Your task to perform on an android device: move a message to another label in the gmail app Image 0: 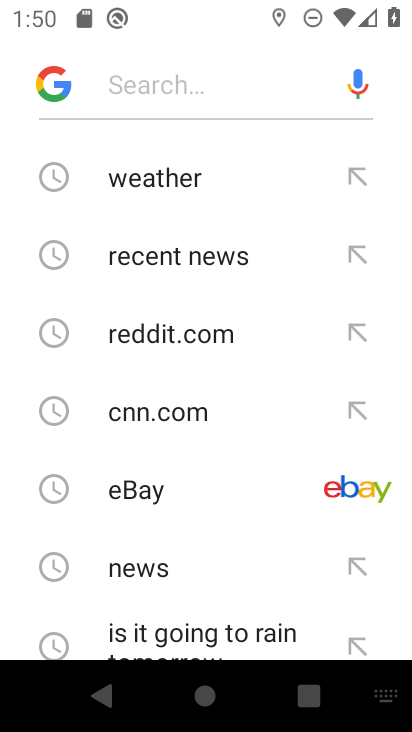
Step 0: press home button
Your task to perform on an android device: move a message to another label in the gmail app Image 1: 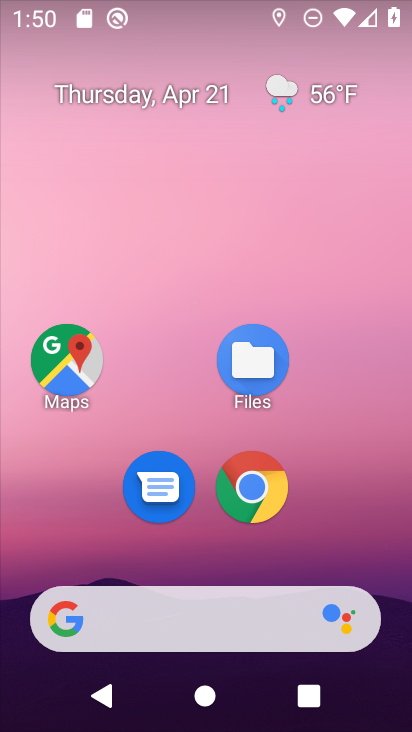
Step 1: drag from (360, 504) to (386, 104)
Your task to perform on an android device: move a message to another label in the gmail app Image 2: 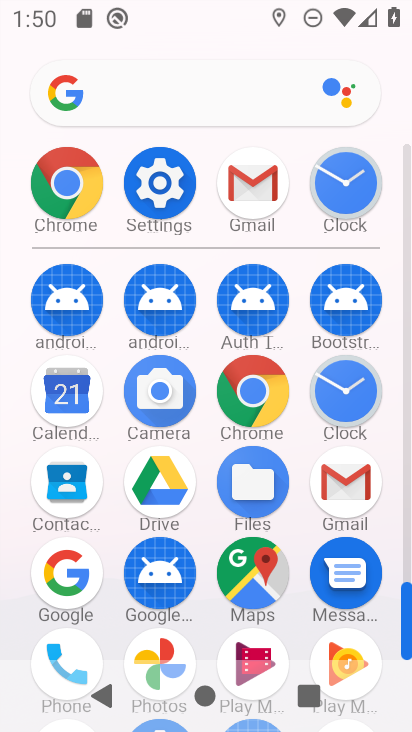
Step 2: click (340, 491)
Your task to perform on an android device: move a message to another label in the gmail app Image 3: 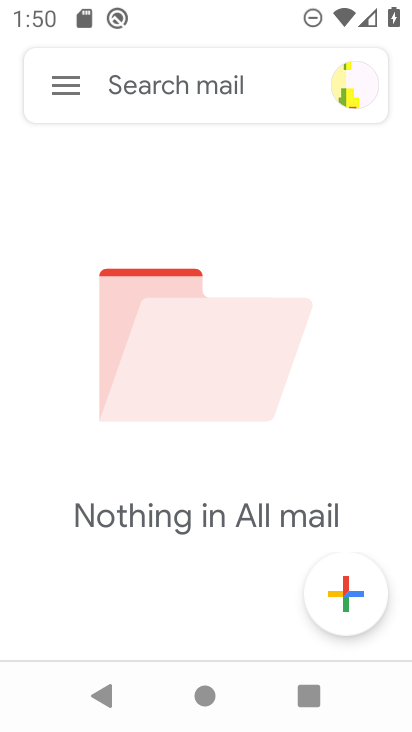
Step 3: click (64, 92)
Your task to perform on an android device: move a message to another label in the gmail app Image 4: 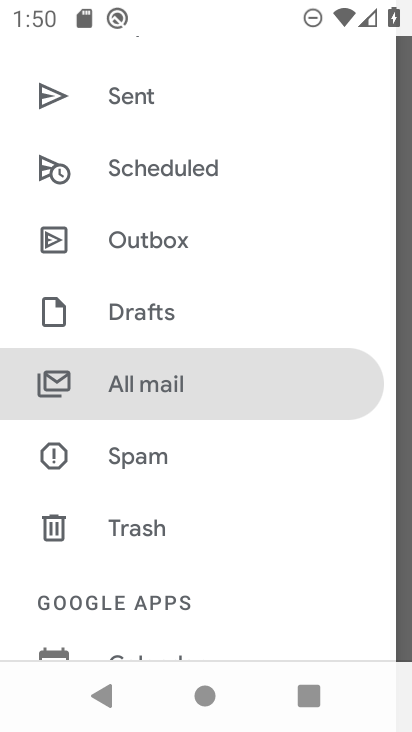
Step 4: drag from (230, 516) to (271, 279)
Your task to perform on an android device: move a message to another label in the gmail app Image 5: 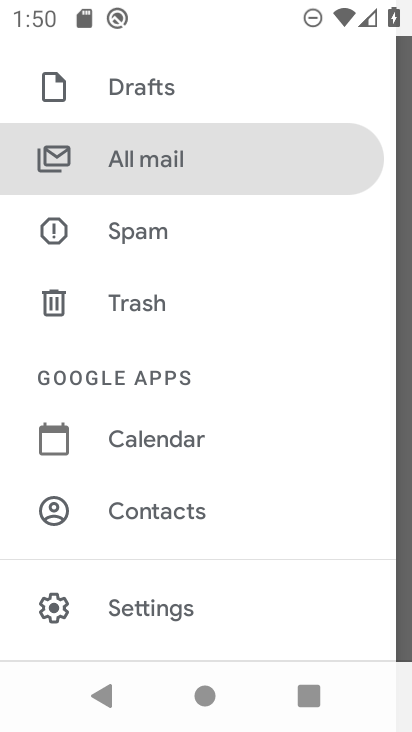
Step 5: click (132, 157)
Your task to perform on an android device: move a message to another label in the gmail app Image 6: 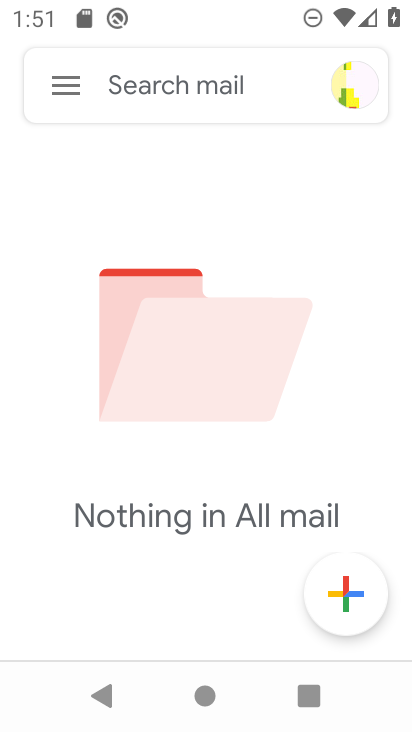
Step 6: task complete